Your task to perform on an android device: Open Maps and search for coffee Image 0: 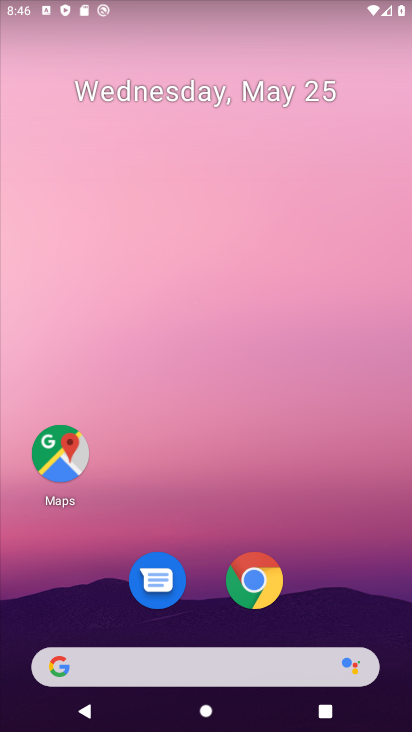
Step 0: click (47, 457)
Your task to perform on an android device: Open Maps and search for coffee Image 1: 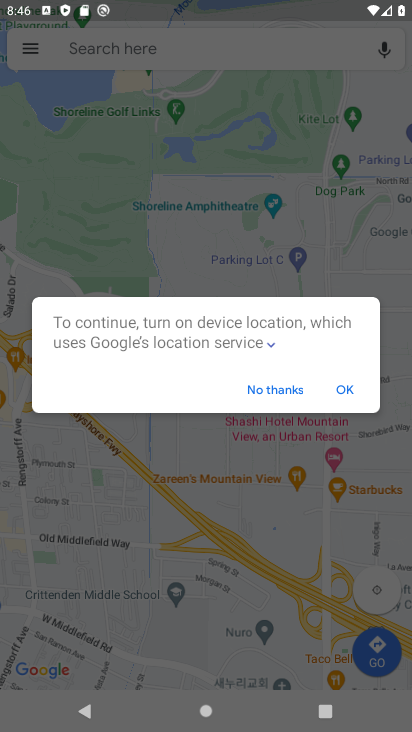
Step 1: click (153, 57)
Your task to perform on an android device: Open Maps and search for coffee Image 2: 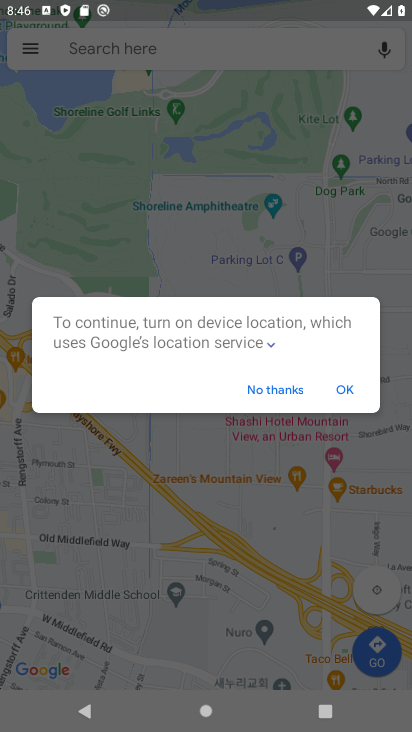
Step 2: click (245, 384)
Your task to perform on an android device: Open Maps and search for coffee Image 3: 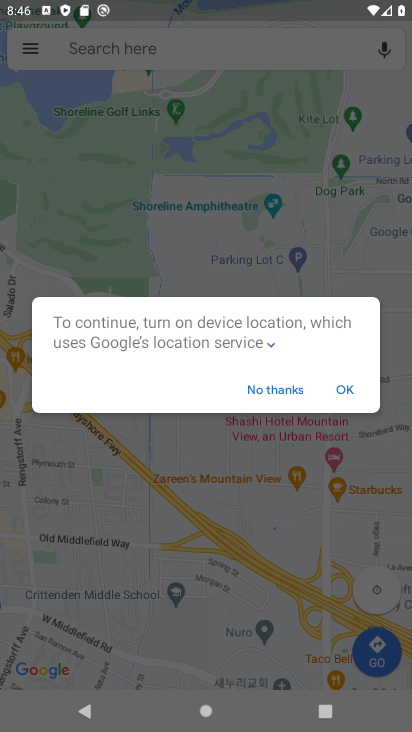
Step 3: click (260, 388)
Your task to perform on an android device: Open Maps and search for coffee Image 4: 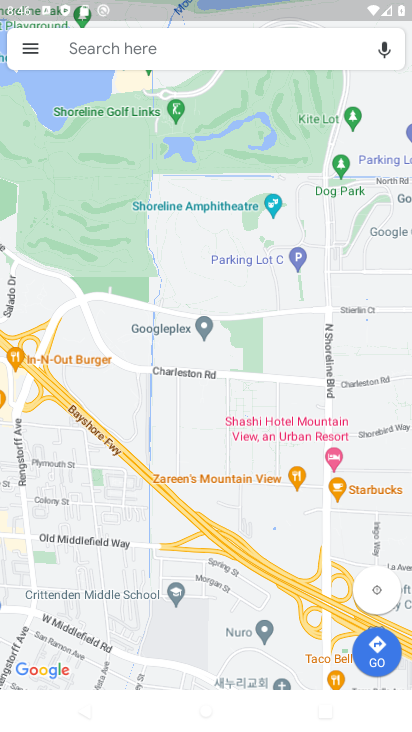
Step 4: click (259, 33)
Your task to perform on an android device: Open Maps and search for coffee Image 5: 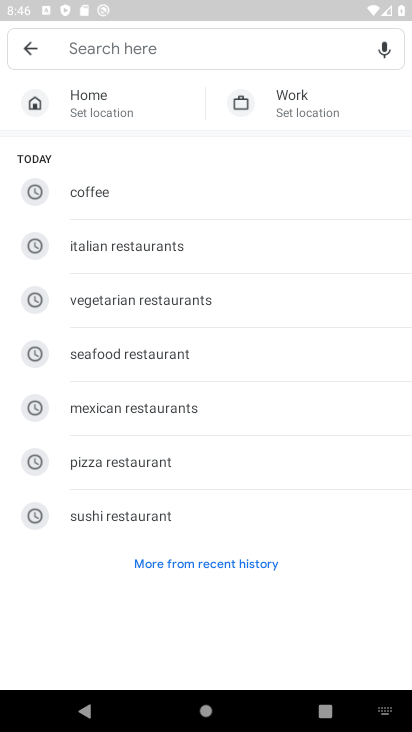
Step 5: click (104, 187)
Your task to perform on an android device: Open Maps and search for coffee Image 6: 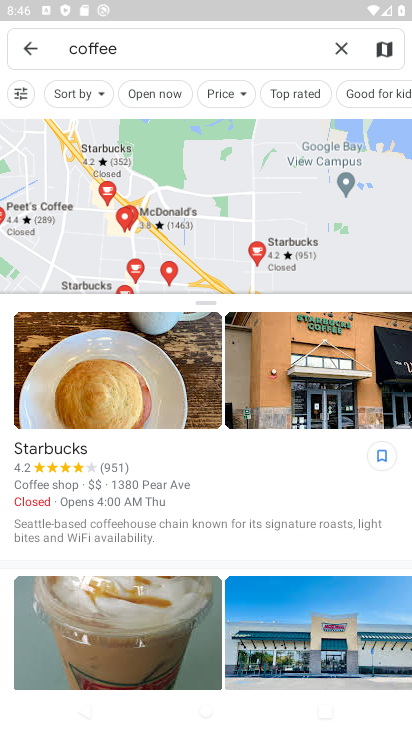
Step 6: task complete